Your task to perform on an android device: empty trash in google photos Image 0: 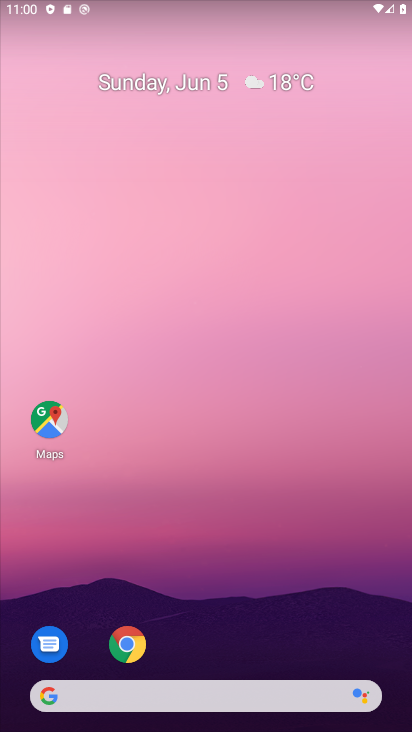
Step 0: drag from (219, 570) to (174, 199)
Your task to perform on an android device: empty trash in google photos Image 1: 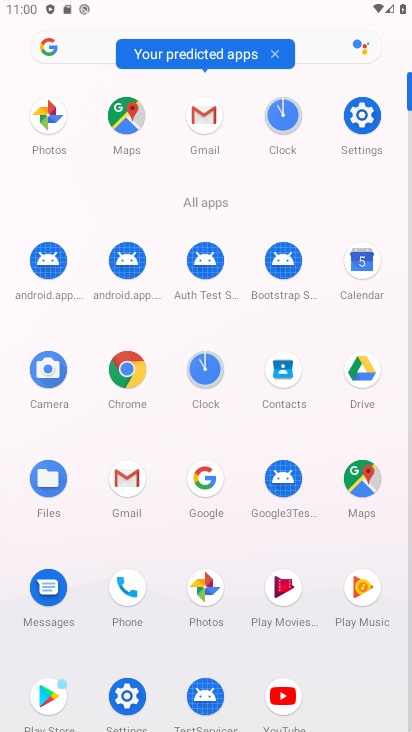
Step 1: click (190, 587)
Your task to perform on an android device: empty trash in google photos Image 2: 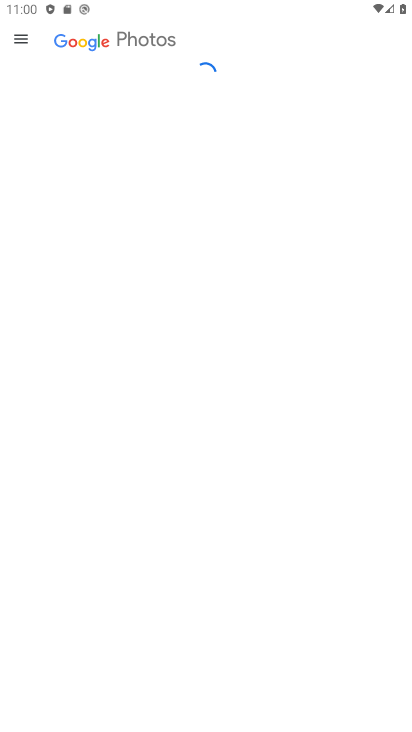
Step 2: click (15, 48)
Your task to perform on an android device: empty trash in google photos Image 3: 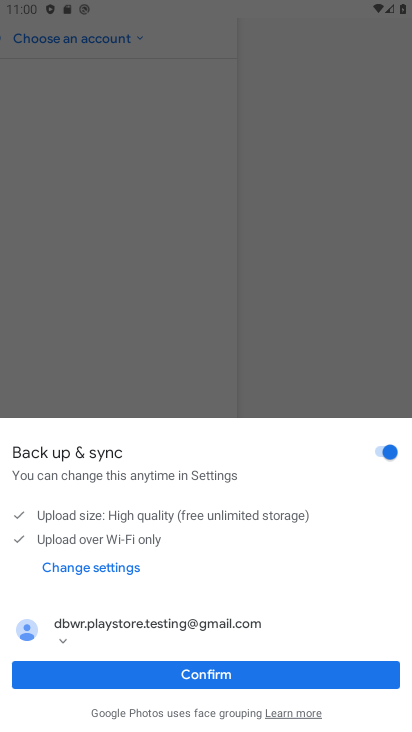
Step 3: drag from (153, 458) to (201, 595)
Your task to perform on an android device: empty trash in google photos Image 4: 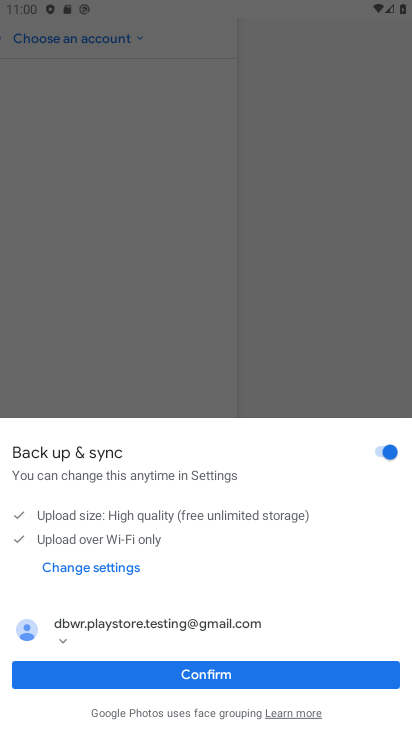
Step 4: click (240, 682)
Your task to perform on an android device: empty trash in google photos Image 5: 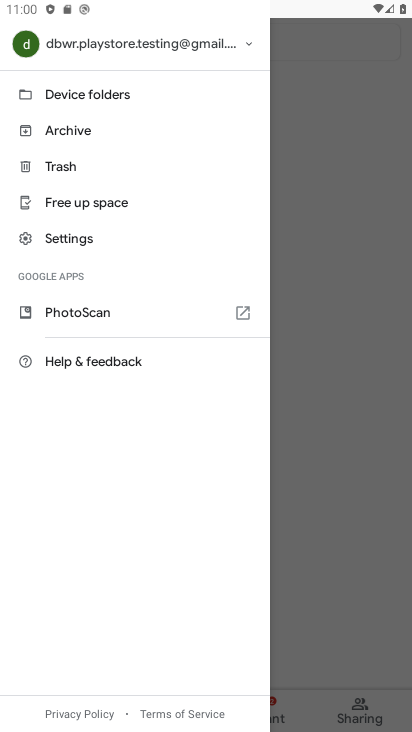
Step 5: click (65, 165)
Your task to perform on an android device: empty trash in google photos Image 6: 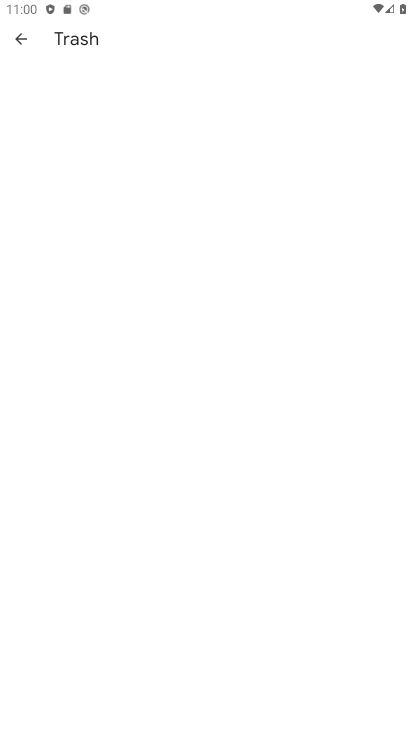
Step 6: task complete